Your task to perform on an android device: Go to ESPN.com Image 0: 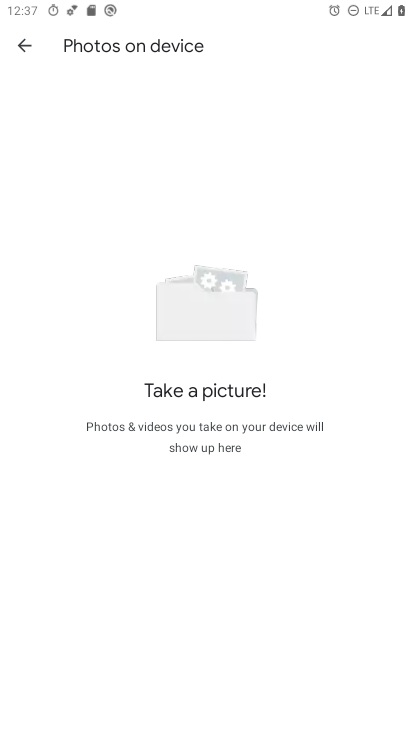
Step 0: press home button
Your task to perform on an android device: Go to ESPN.com Image 1: 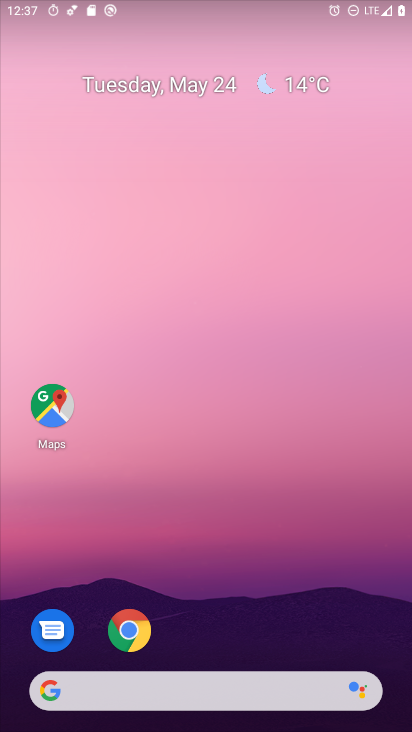
Step 1: drag from (345, 620) to (326, 149)
Your task to perform on an android device: Go to ESPN.com Image 2: 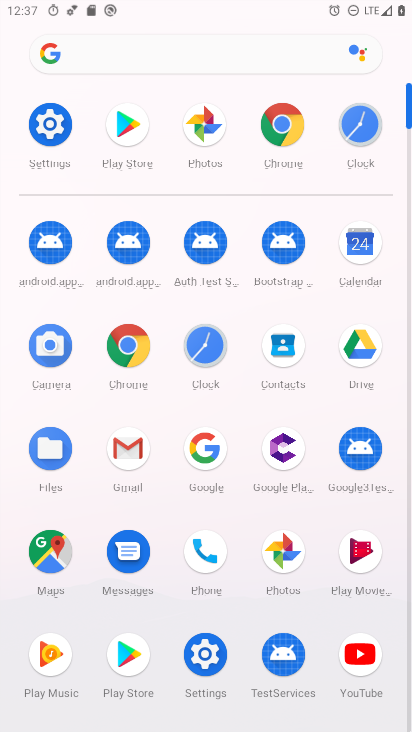
Step 2: click (114, 371)
Your task to perform on an android device: Go to ESPN.com Image 3: 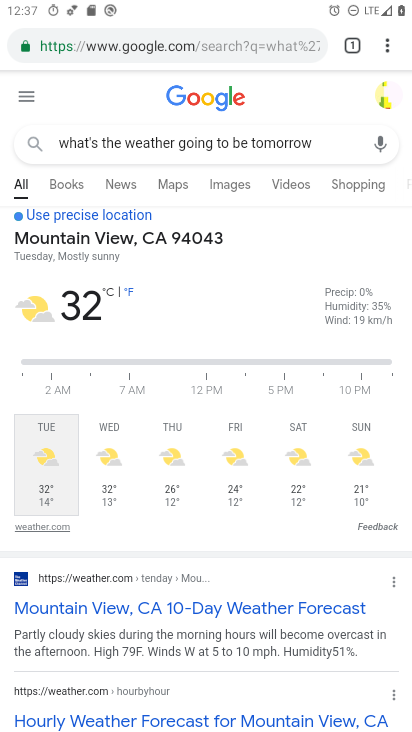
Step 3: click (243, 47)
Your task to perform on an android device: Go to ESPN.com Image 4: 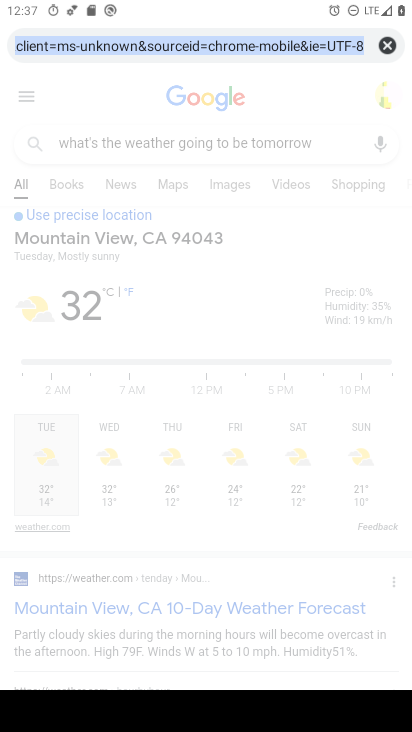
Step 4: click (383, 40)
Your task to perform on an android device: Go to ESPN.com Image 5: 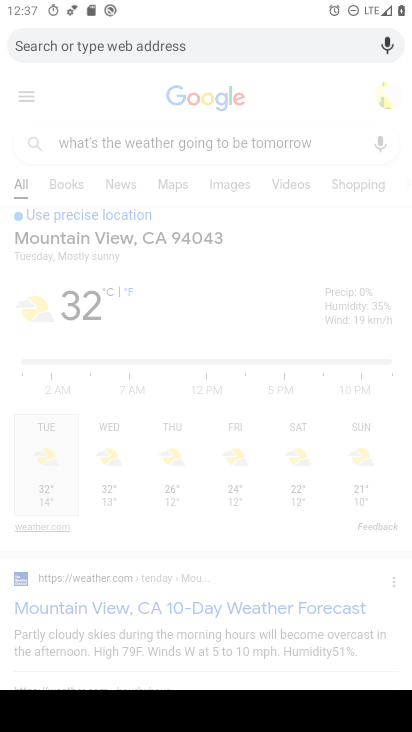
Step 5: type "go to espn.com"
Your task to perform on an android device: Go to ESPN.com Image 6: 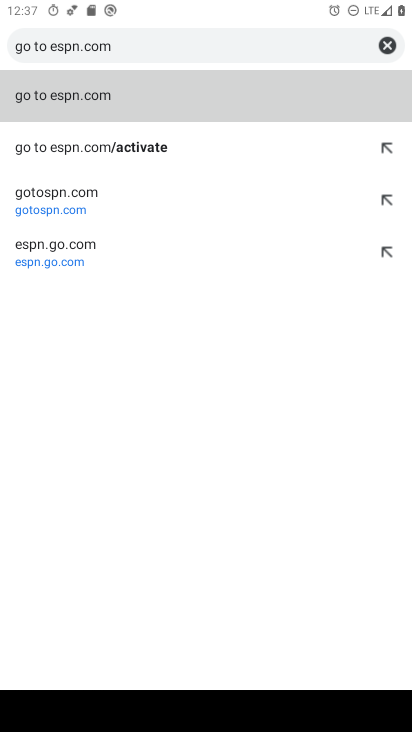
Step 6: click (71, 248)
Your task to perform on an android device: Go to ESPN.com Image 7: 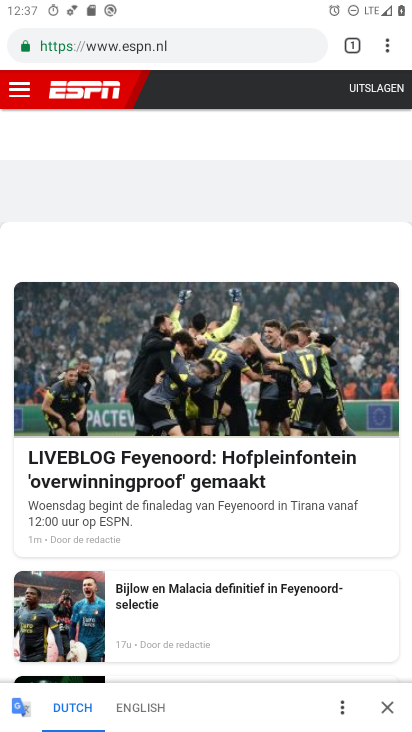
Step 7: task complete